Your task to perform on an android device: Show me productivity apps on the Play Store Image 0: 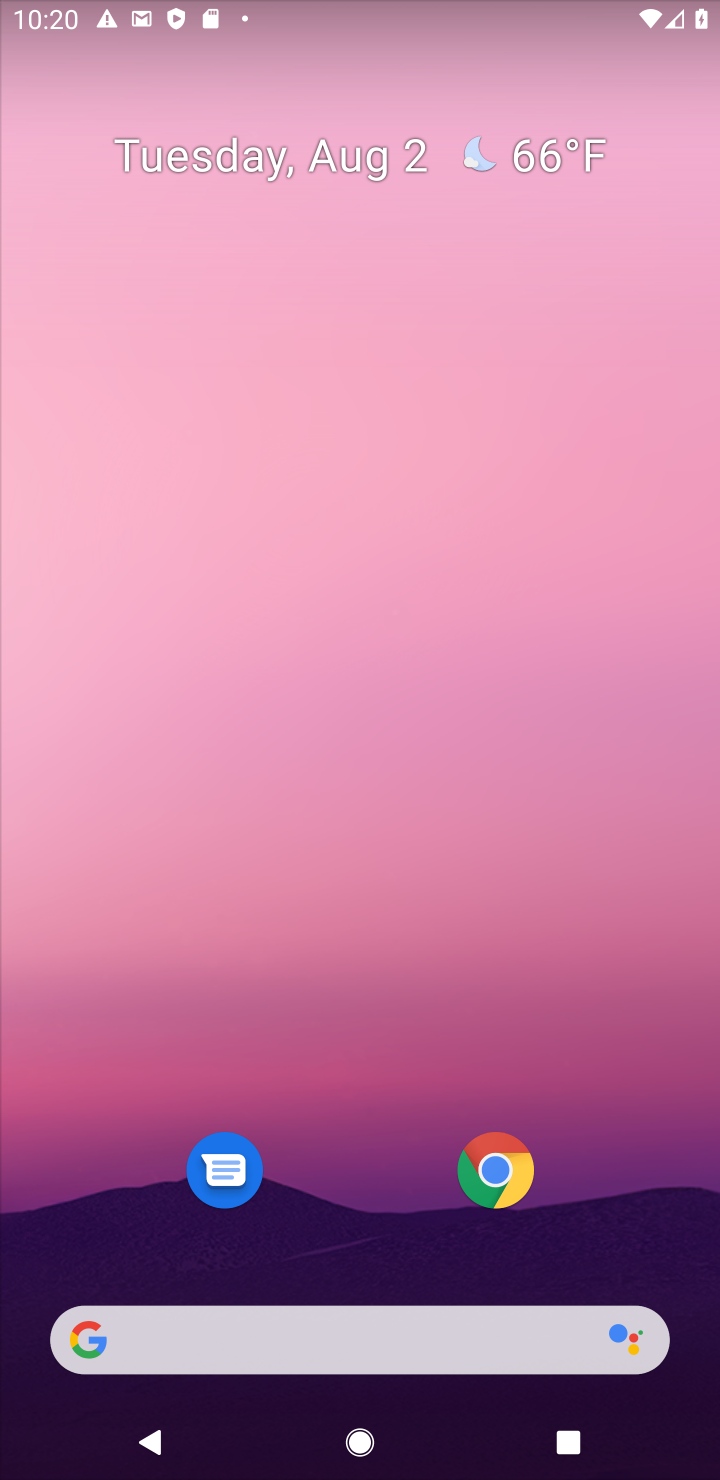
Step 0: drag from (404, 852) to (368, 275)
Your task to perform on an android device: Show me productivity apps on the Play Store Image 1: 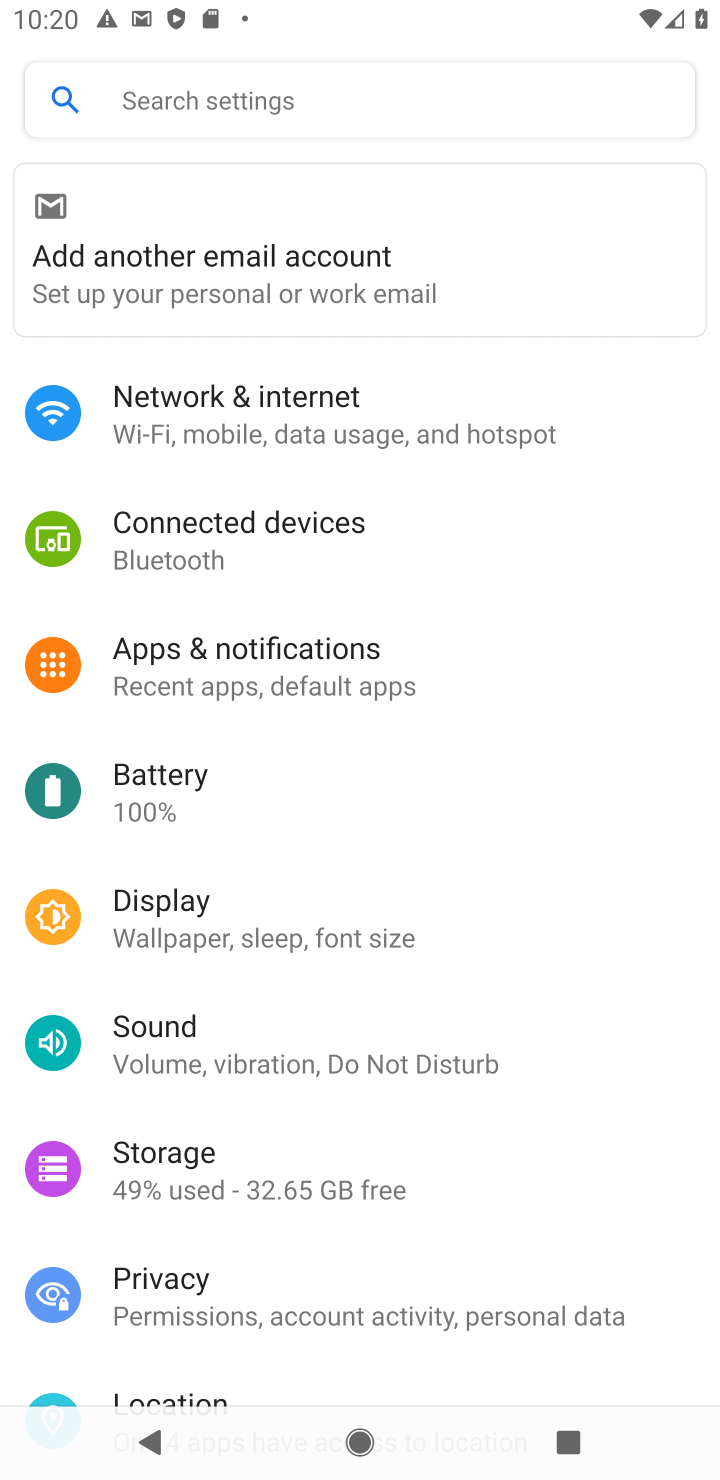
Step 1: press home button
Your task to perform on an android device: Show me productivity apps on the Play Store Image 2: 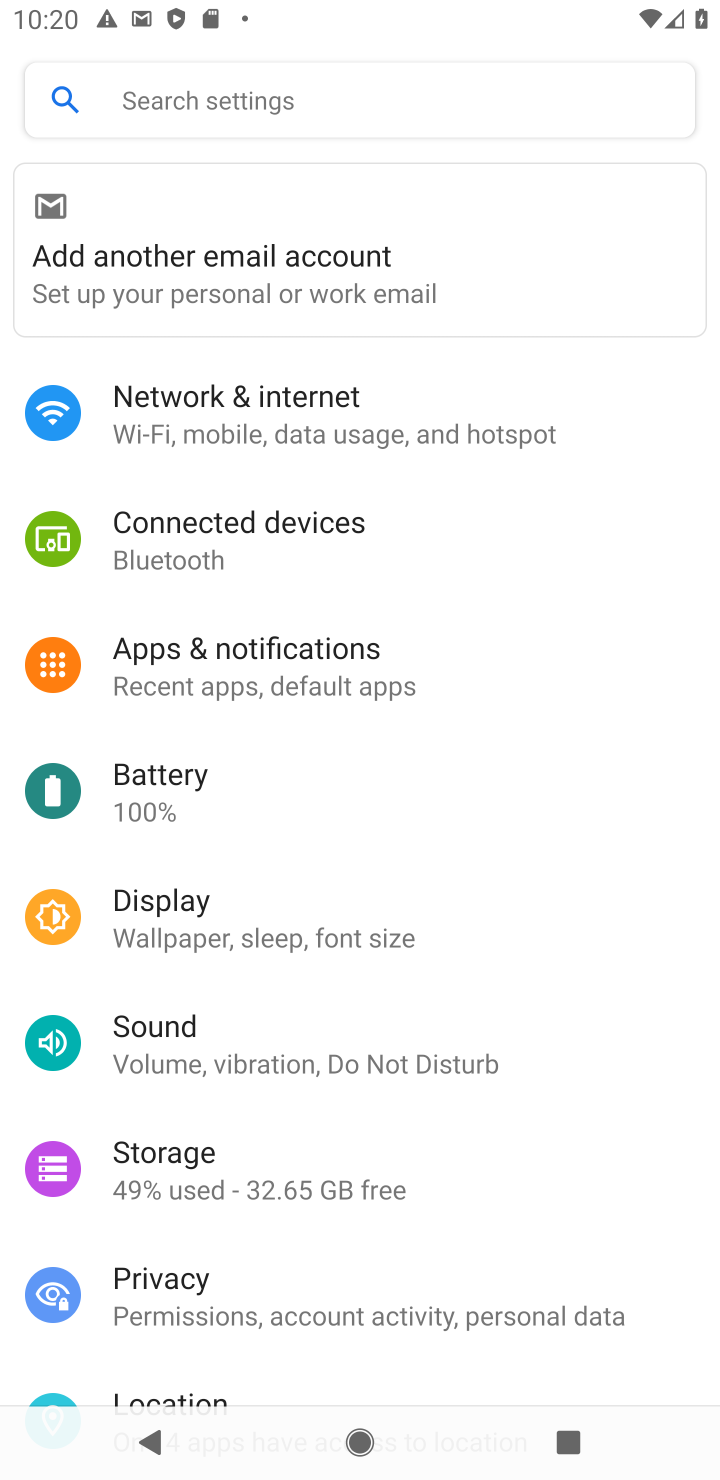
Step 2: drag from (329, 1195) to (432, 321)
Your task to perform on an android device: Show me productivity apps on the Play Store Image 3: 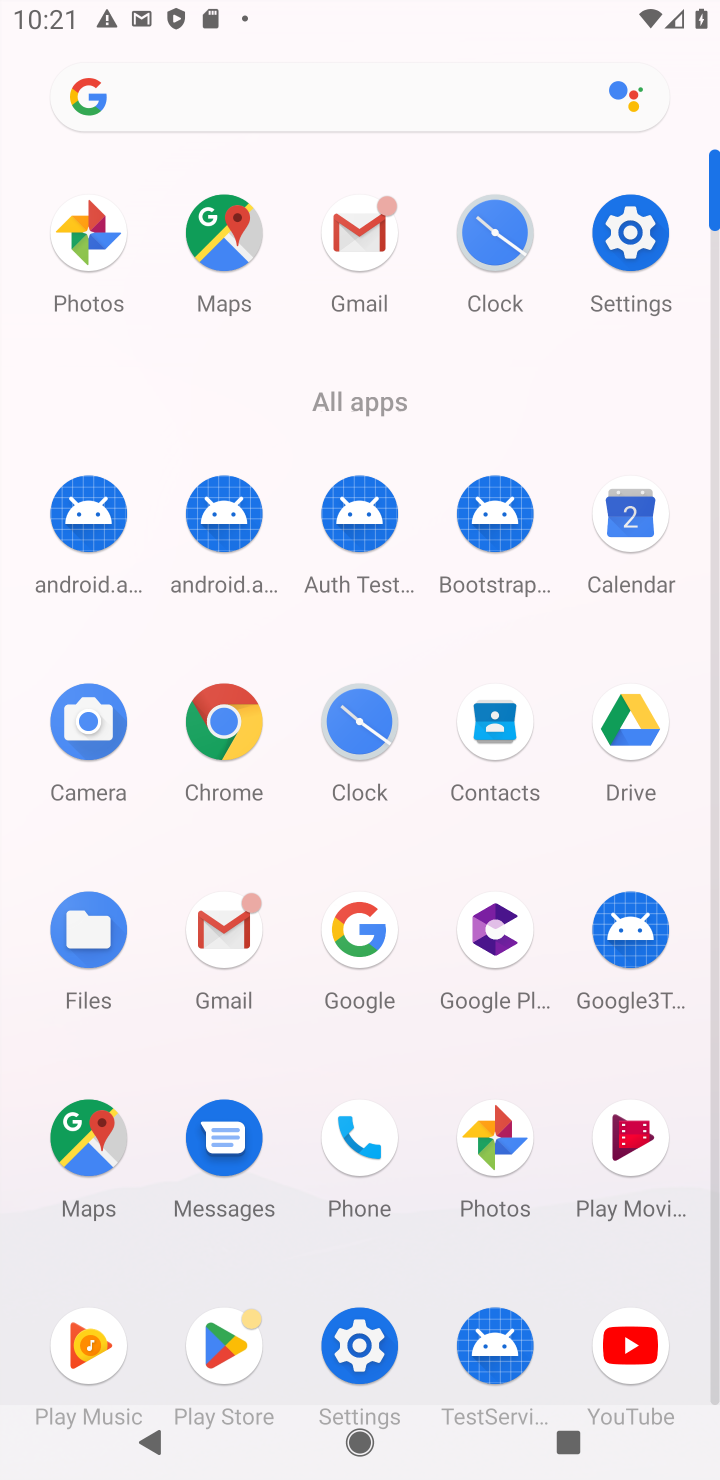
Step 3: click (212, 1346)
Your task to perform on an android device: Show me productivity apps on the Play Store Image 4: 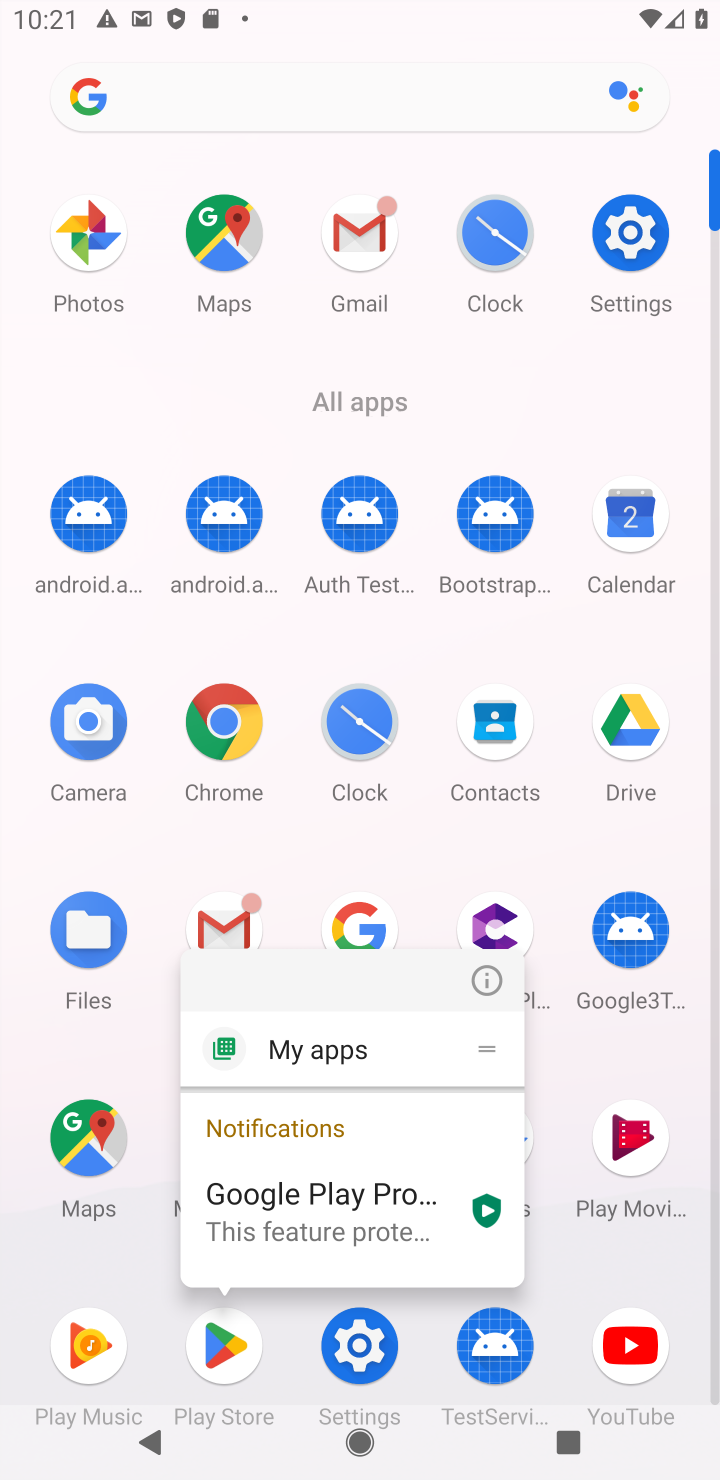
Step 4: click (485, 976)
Your task to perform on an android device: Show me productivity apps on the Play Store Image 5: 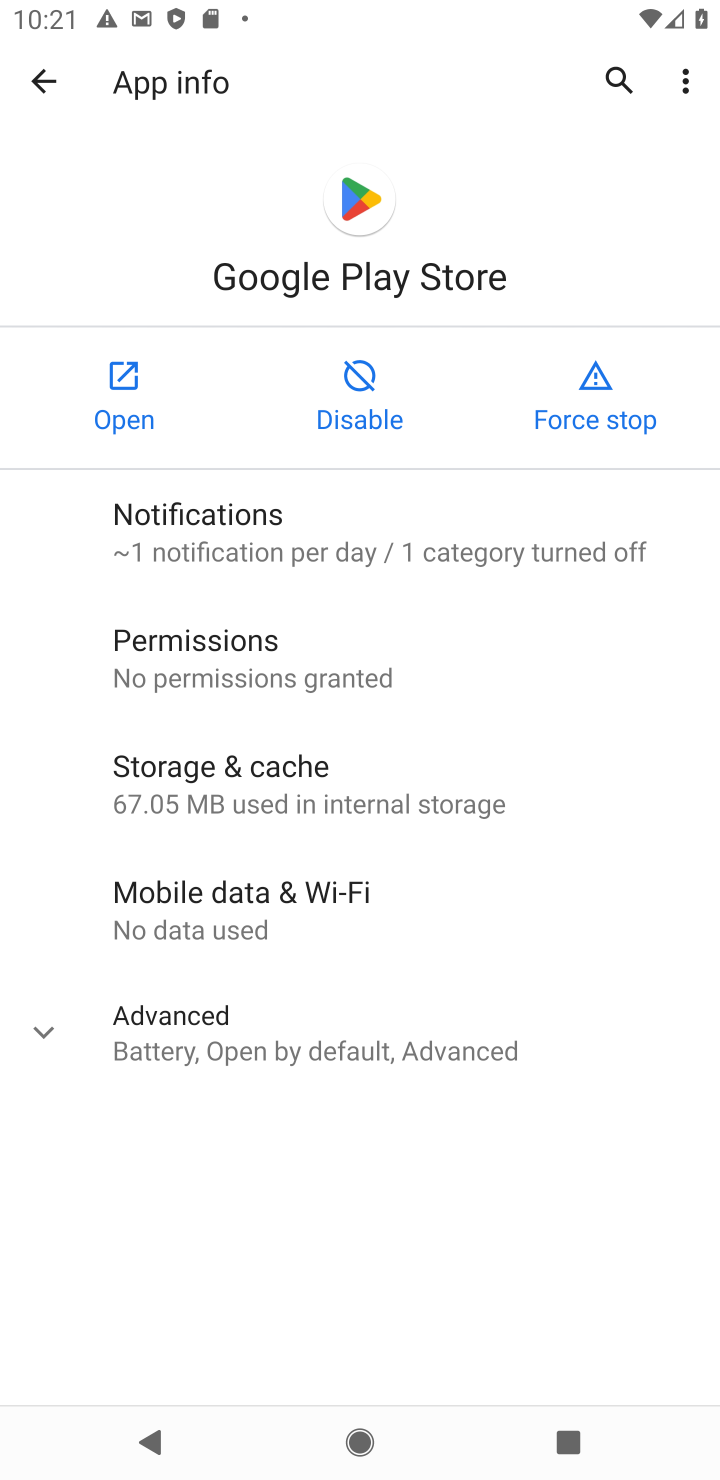
Step 5: click (104, 418)
Your task to perform on an android device: Show me productivity apps on the Play Store Image 6: 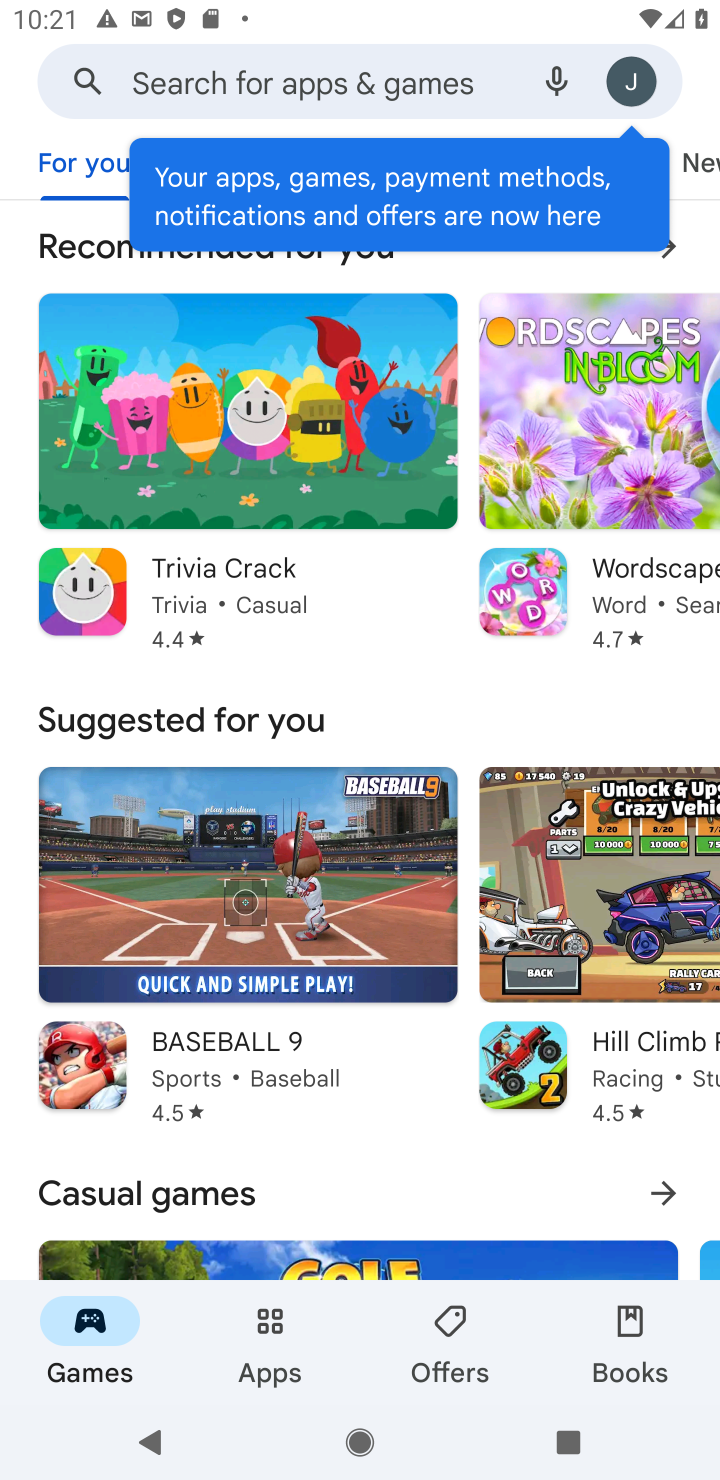
Step 6: task complete